Your task to perform on an android device: uninstall "Google News" Image 0: 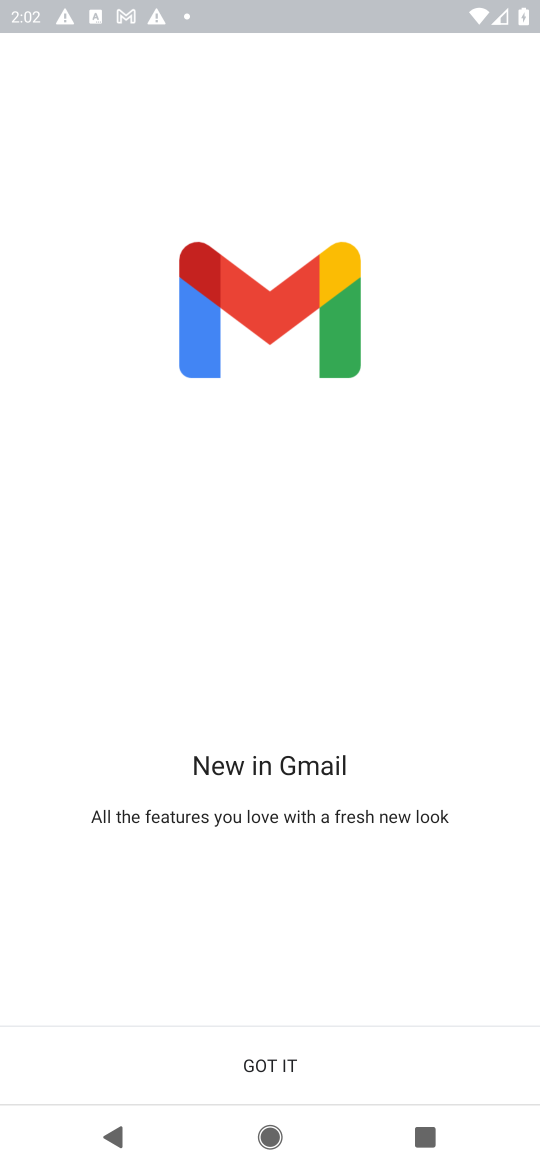
Step 0: press home button
Your task to perform on an android device: uninstall "Google News" Image 1: 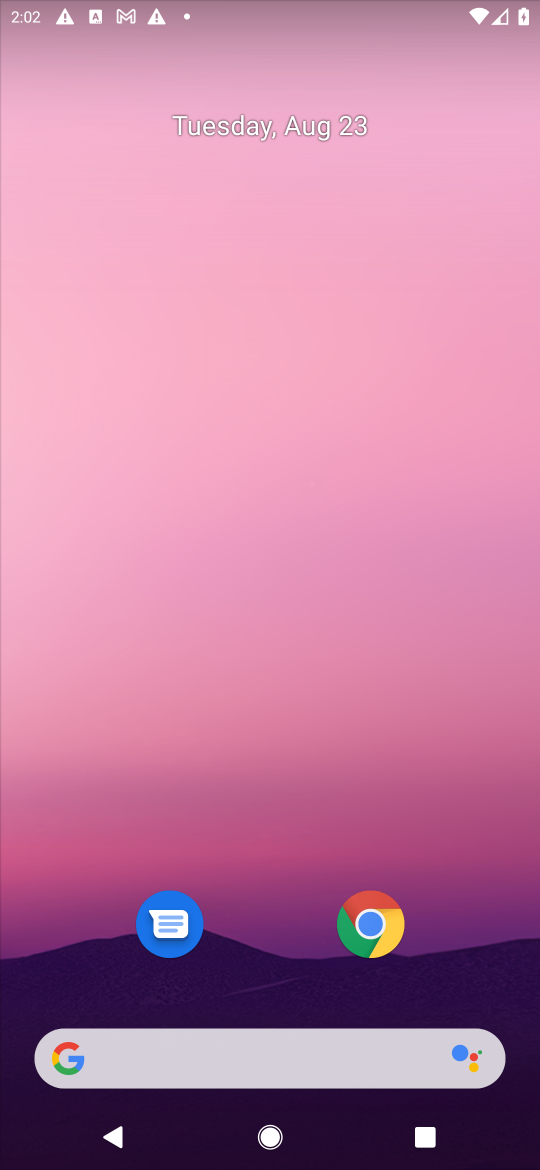
Step 1: drag from (468, 972) to (461, 173)
Your task to perform on an android device: uninstall "Google News" Image 2: 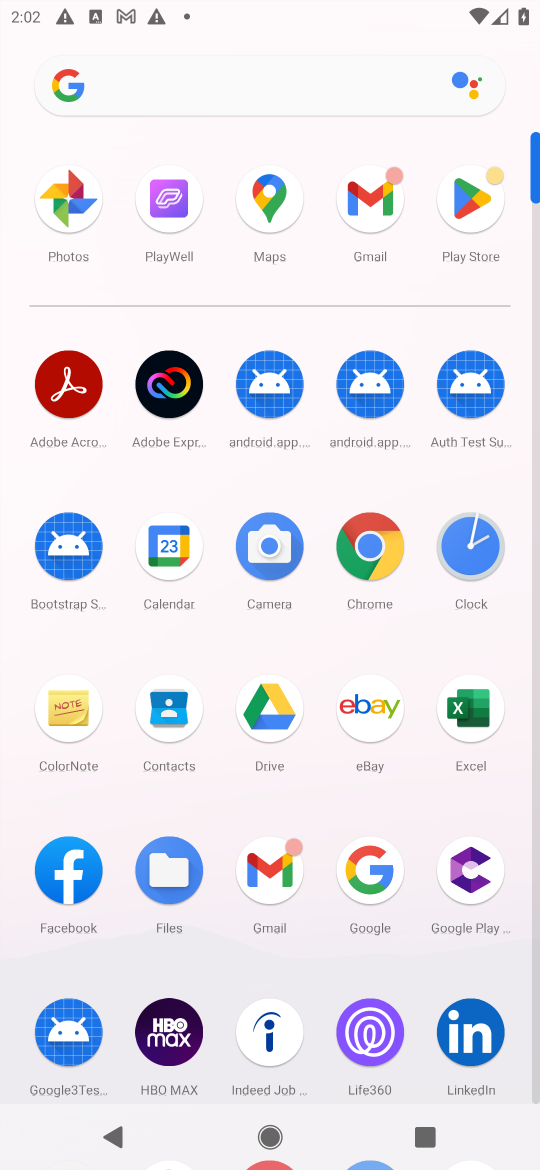
Step 2: click (478, 199)
Your task to perform on an android device: uninstall "Google News" Image 3: 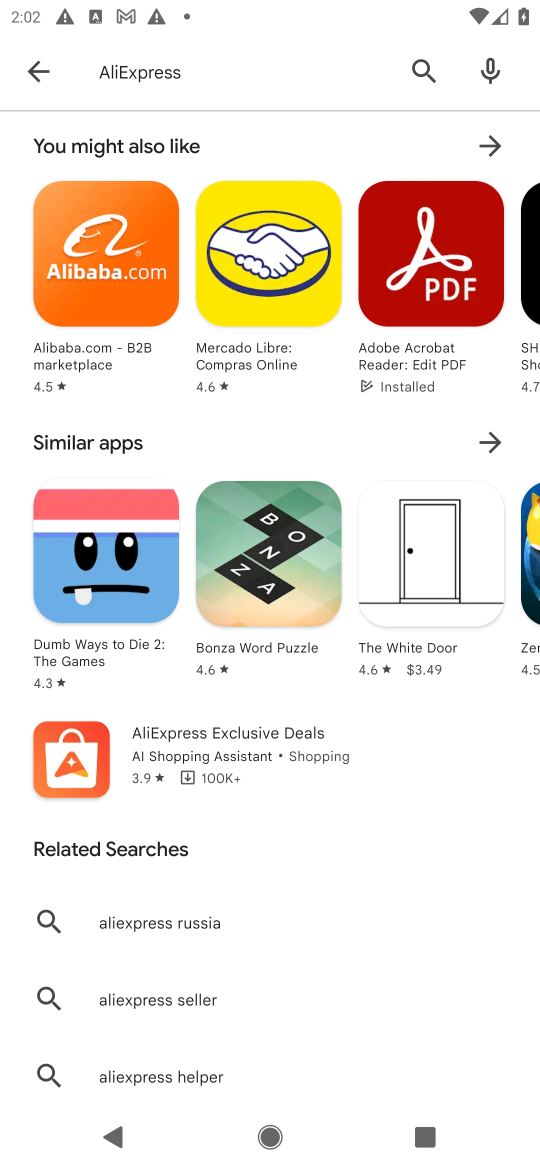
Step 3: press back button
Your task to perform on an android device: uninstall "Google News" Image 4: 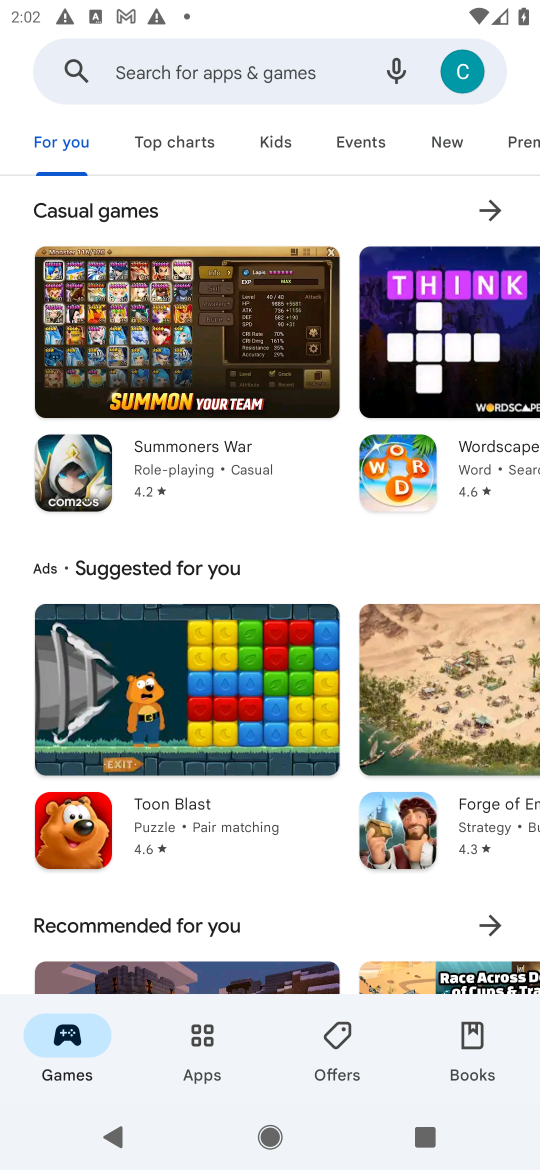
Step 4: click (229, 69)
Your task to perform on an android device: uninstall "Google News" Image 5: 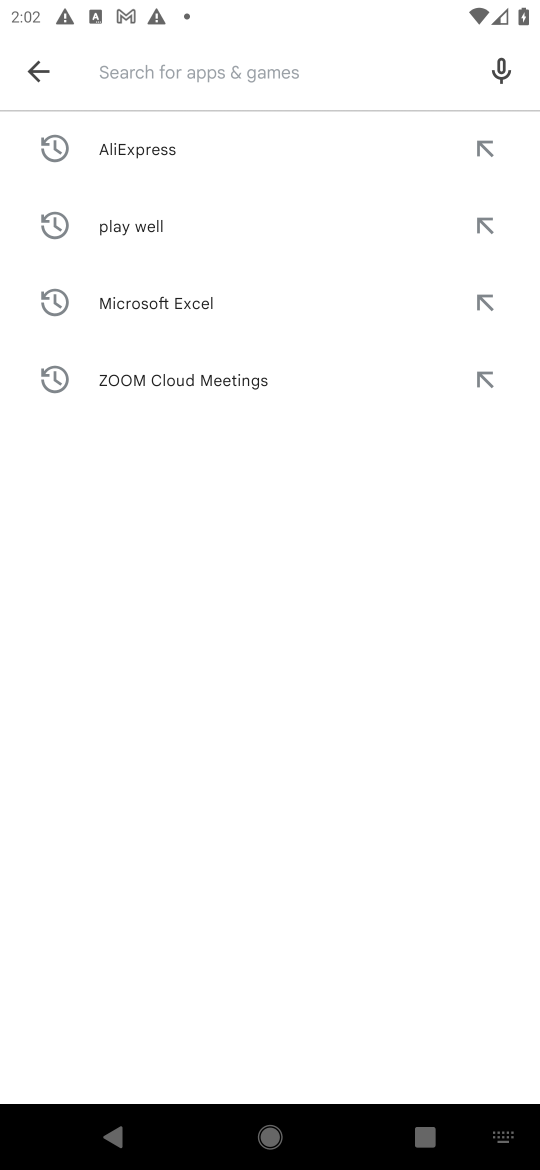
Step 5: type "google news"
Your task to perform on an android device: uninstall "Google News" Image 6: 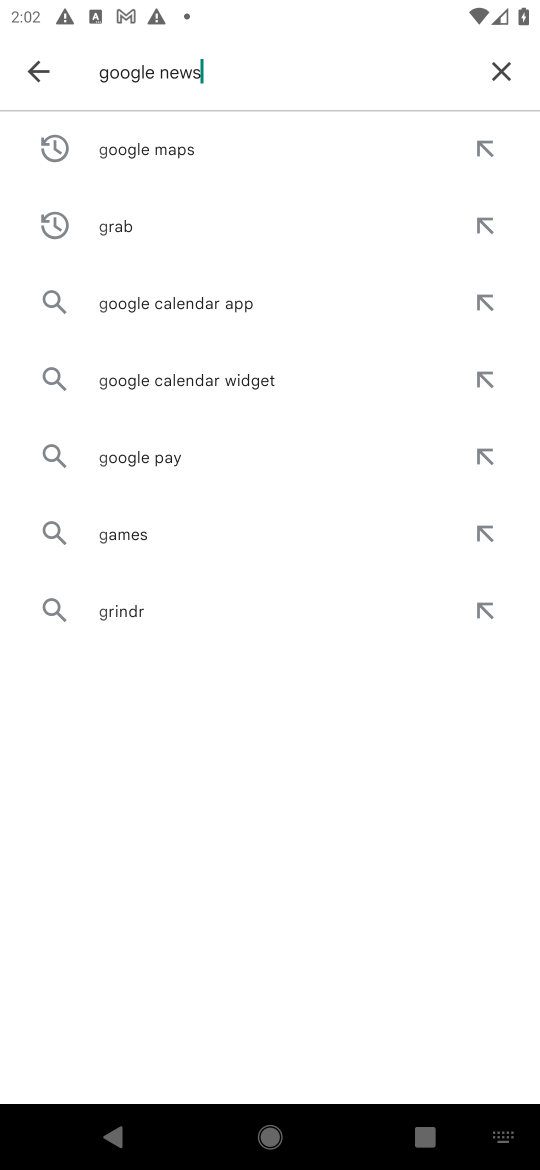
Step 6: press enter
Your task to perform on an android device: uninstall "Google News" Image 7: 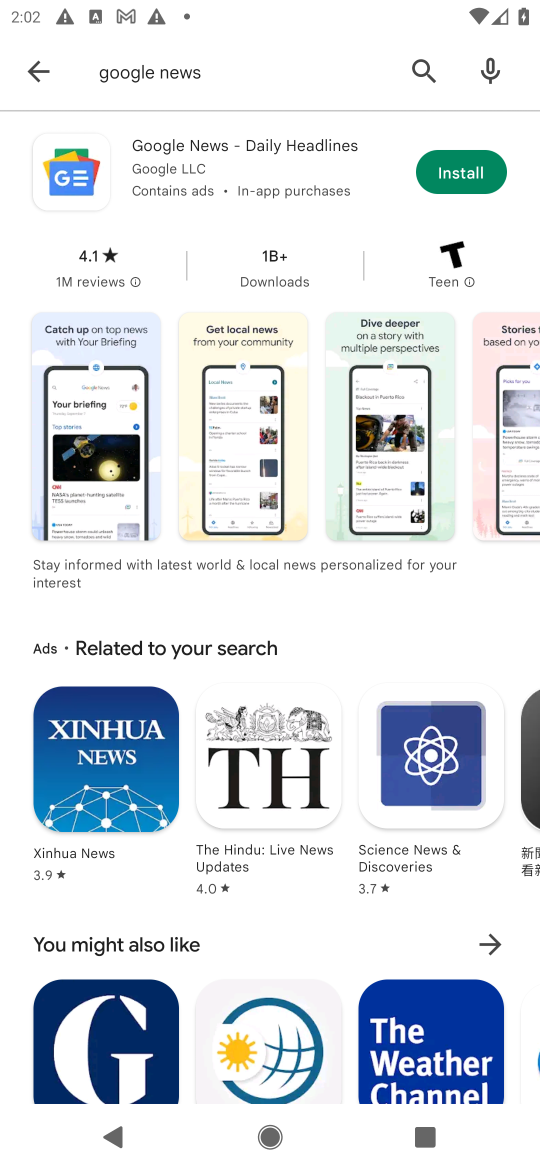
Step 7: task complete